Your task to perform on an android device: What's the weather? Image 0: 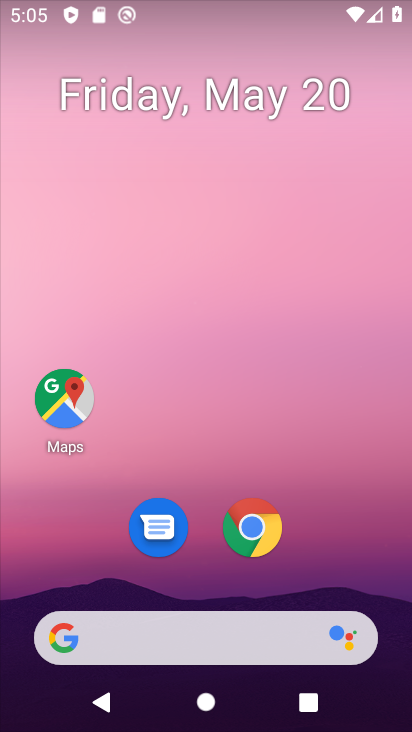
Step 0: drag from (313, 601) to (319, 61)
Your task to perform on an android device: What's the weather? Image 1: 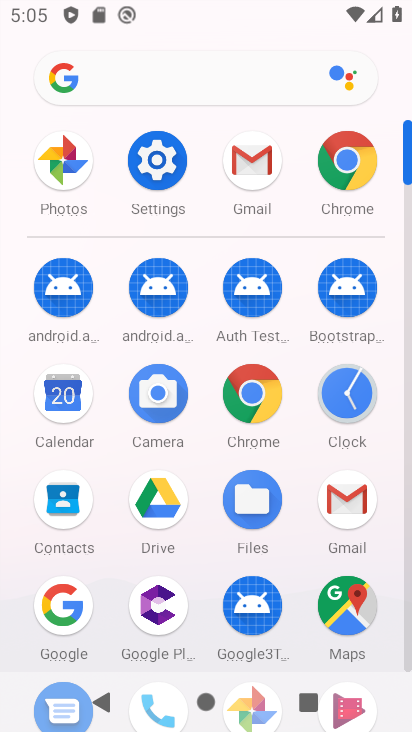
Step 1: press home button
Your task to perform on an android device: What's the weather? Image 2: 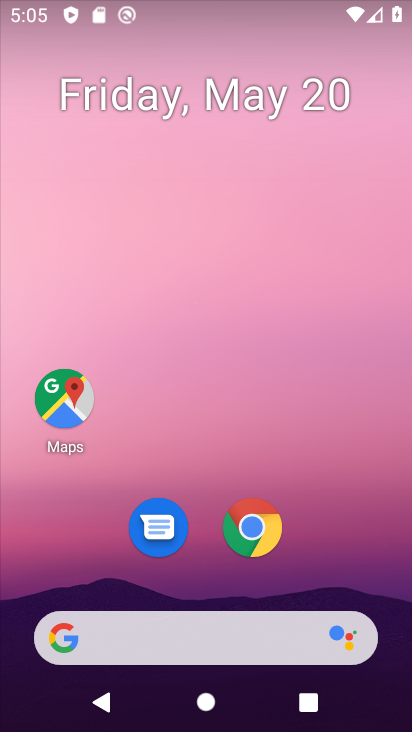
Step 2: drag from (1, 299) to (412, 331)
Your task to perform on an android device: What's the weather? Image 3: 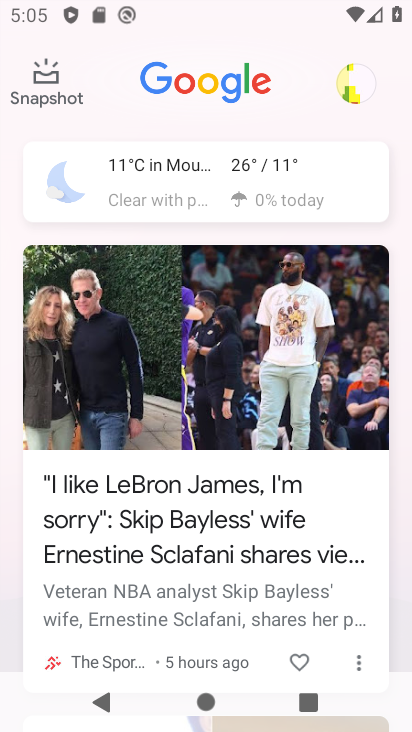
Step 3: click (275, 171)
Your task to perform on an android device: What's the weather? Image 4: 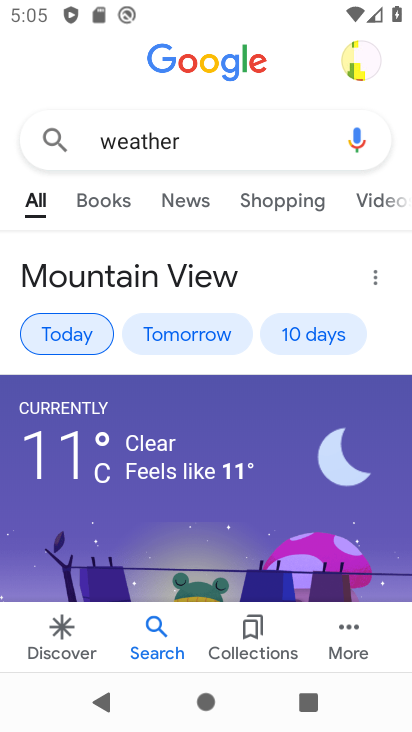
Step 4: task complete